Your task to perform on an android device: set the stopwatch Image 0: 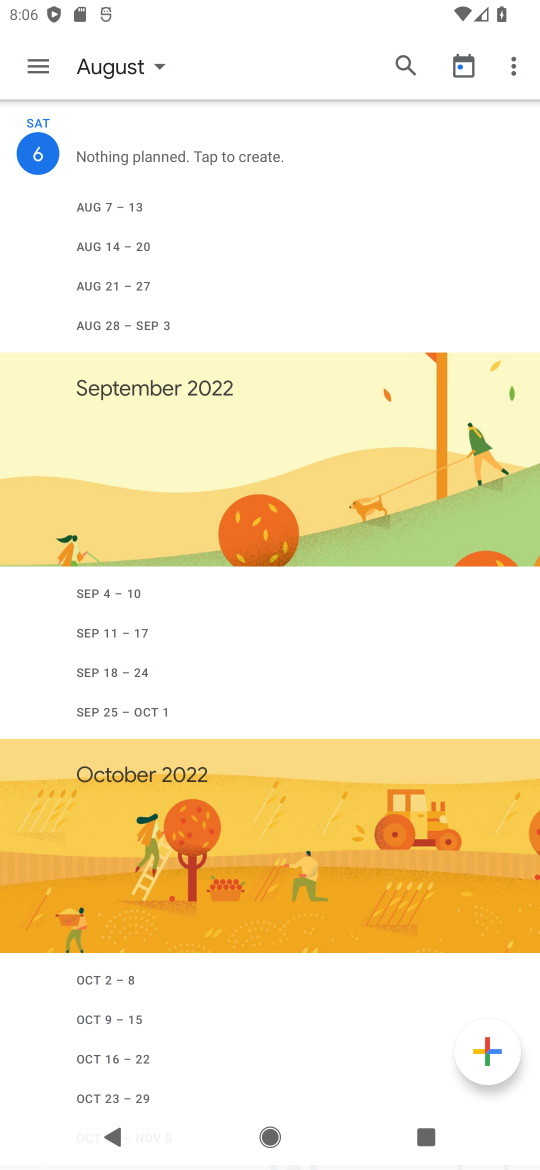
Step 0: press home button
Your task to perform on an android device: set the stopwatch Image 1: 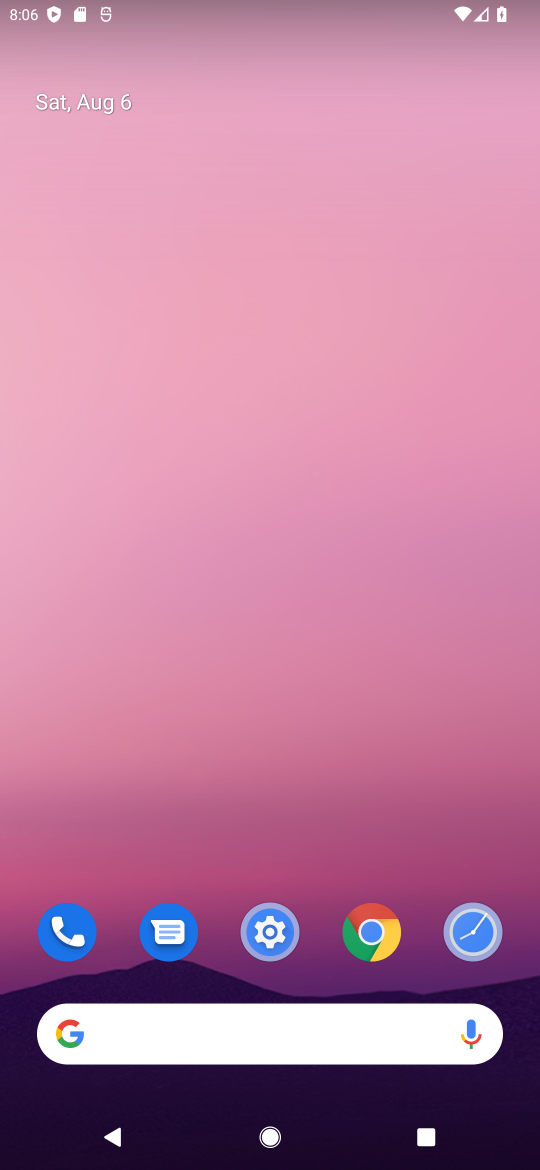
Step 1: drag from (332, 992) to (450, 253)
Your task to perform on an android device: set the stopwatch Image 2: 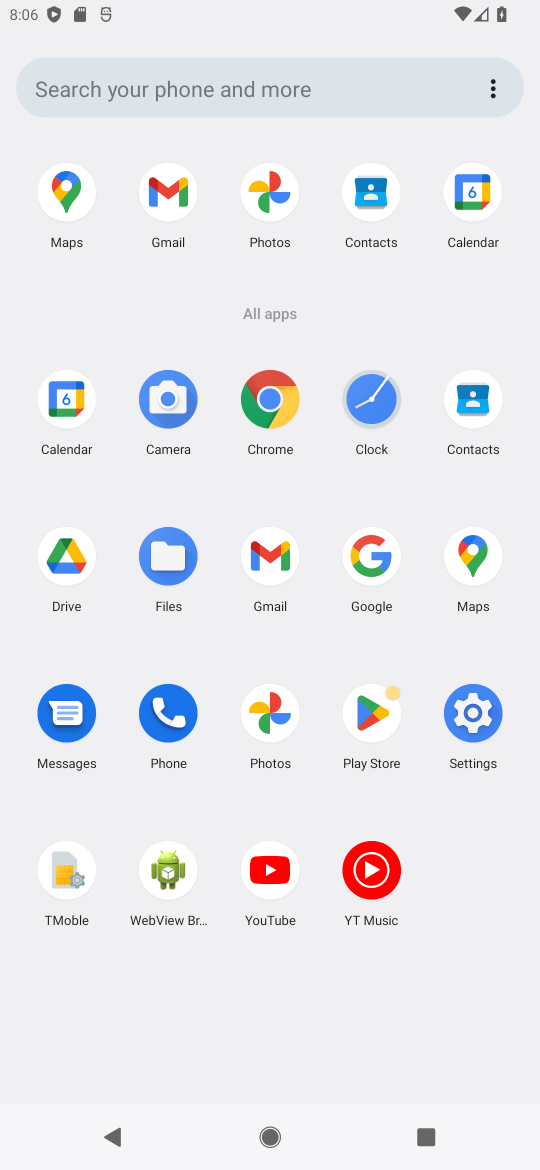
Step 2: click (377, 396)
Your task to perform on an android device: set the stopwatch Image 3: 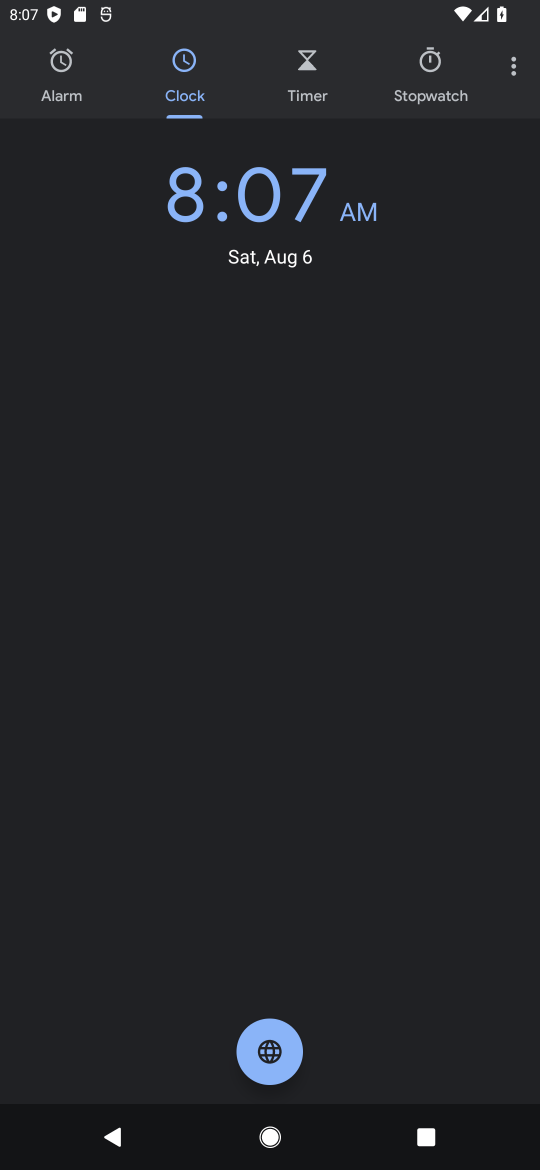
Step 3: click (430, 61)
Your task to perform on an android device: set the stopwatch Image 4: 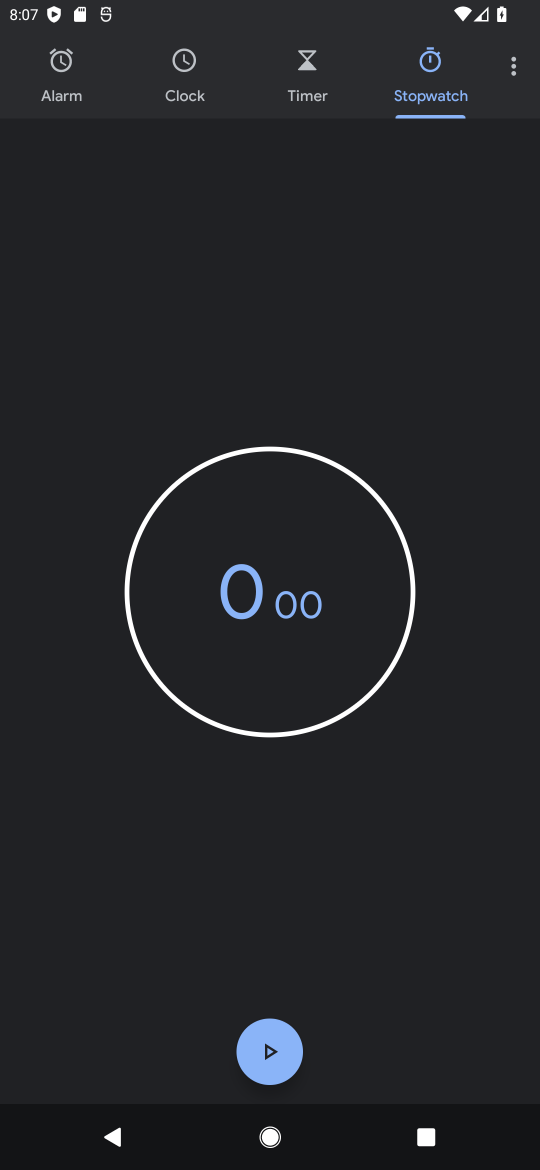
Step 4: click (228, 613)
Your task to perform on an android device: set the stopwatch Image 5: 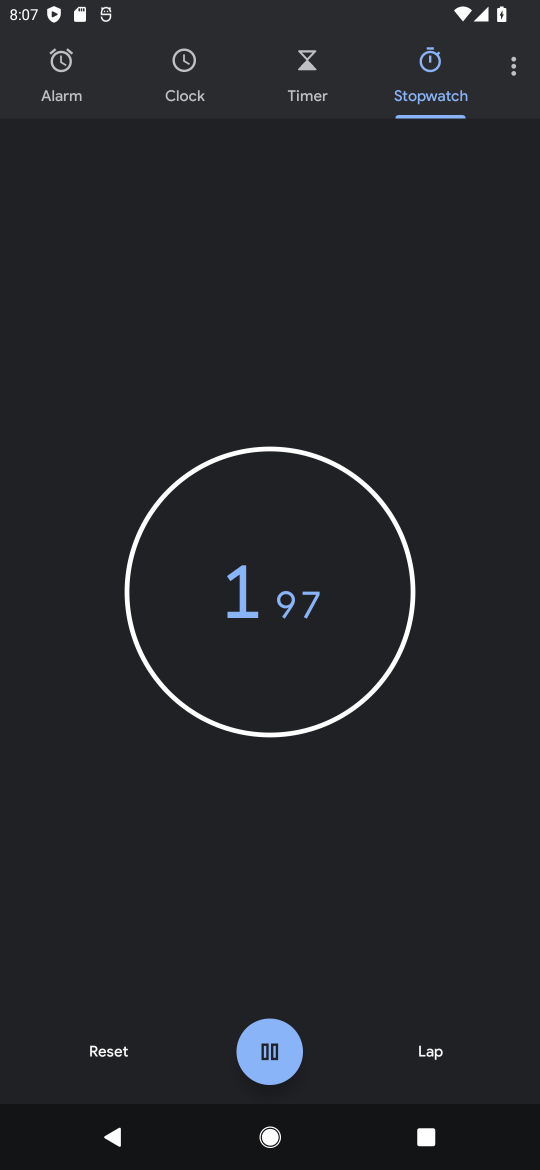
Step 5: click (262, 599)
Your task to perform on an android device: set the stopwatch Image 6: 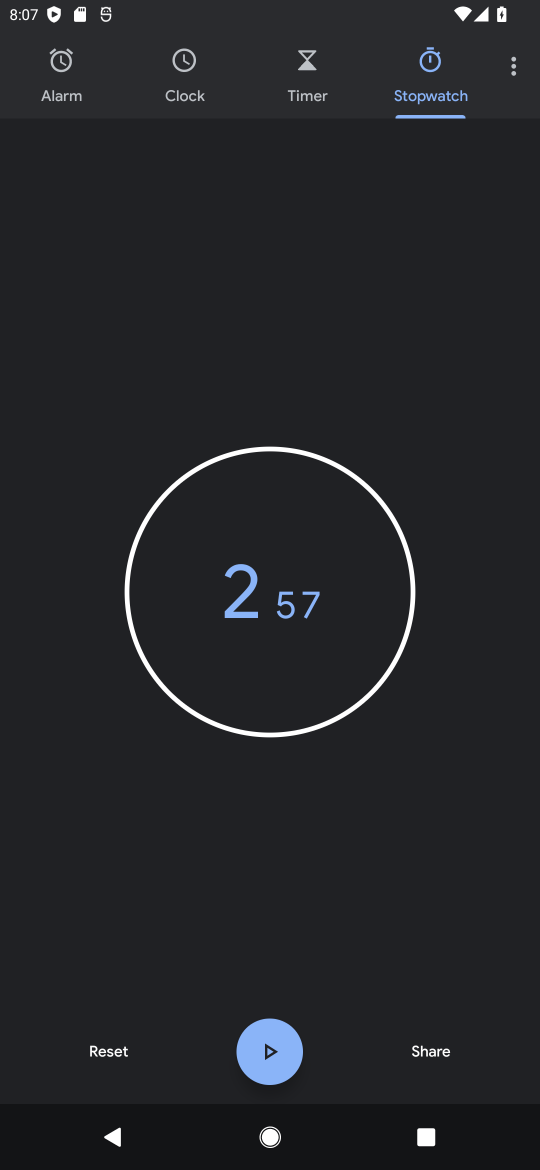
Step 6: task complete